Your task to perform on an android device: turn off location Image 0: 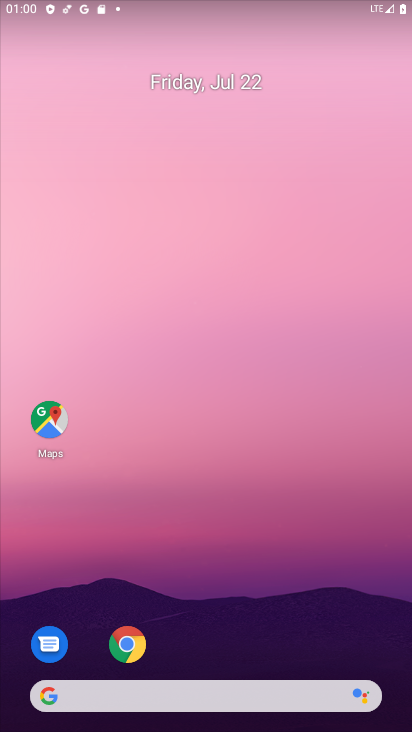
Step 0: drag from (271, 595) to (244, 24)
Your task to perform on an android device: turn off location Image 1: 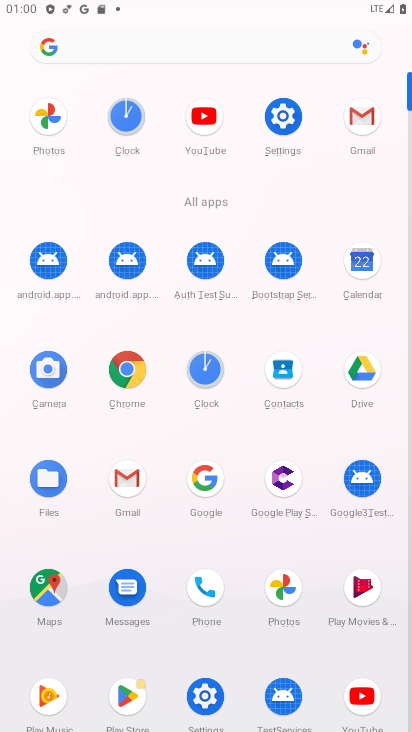
Step 1: click (278, 114)
Your task to perform on an android device: turn off location Image 2: 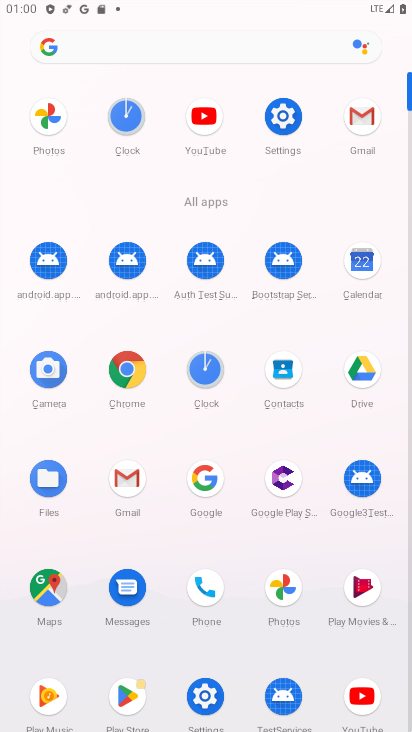
Step 2: click (278, 114)
Your task to perform on an android device: turn off location Image 3: 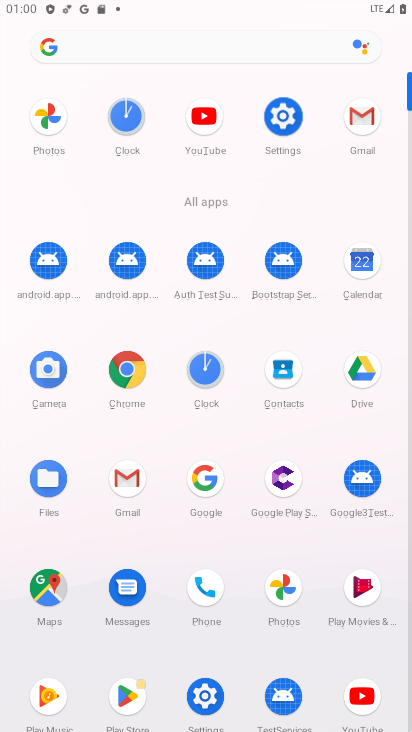
Step 3: click (278, 114)
Your task to perform on an android device: turn off location Image 4: 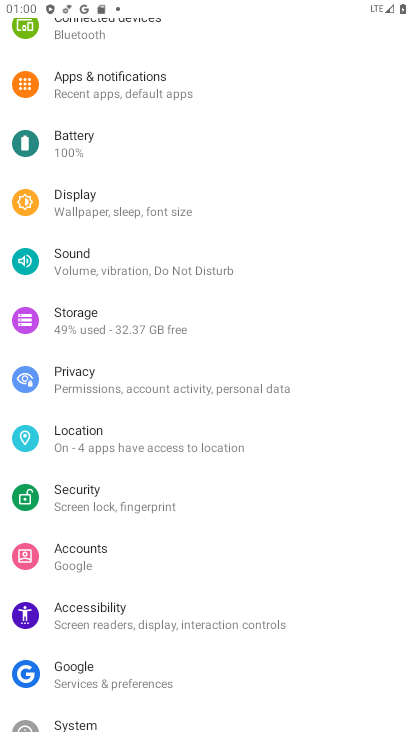
Step 4: click (98, 433)
Your task to perform on an android device: turn off location Image 5: 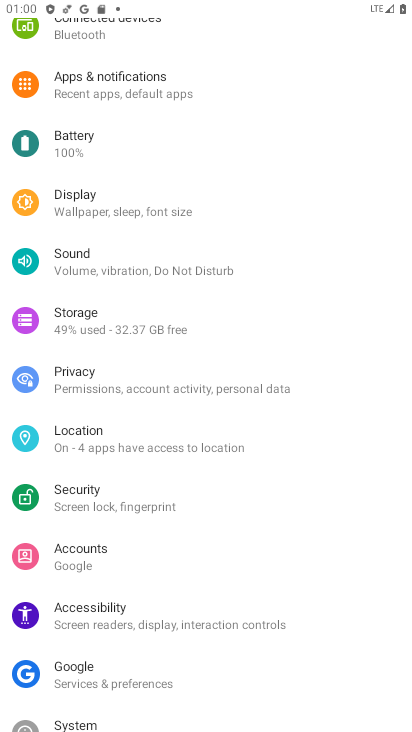
Step 5: click (98, 433)
Your task to perform on an android device: turn off location Image 6: 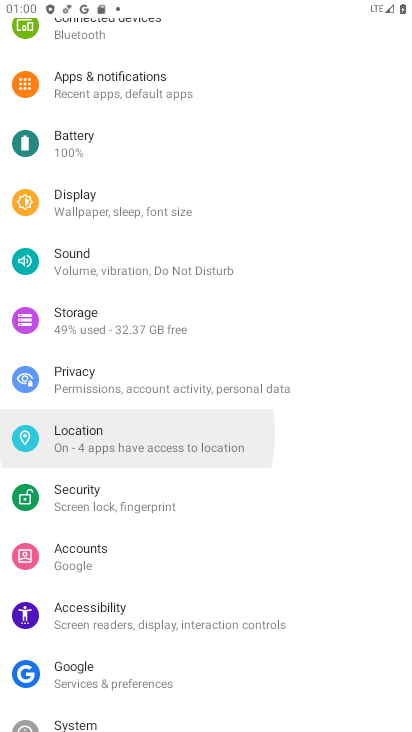
Step 6: click (98, 433)
Your task to perform on an android device: turn off location Image 7: 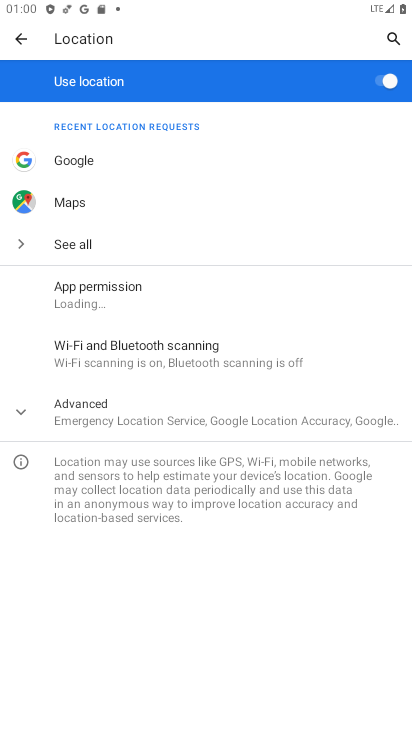
Step 7: click (391, 77)
Your task to perform on an android device: turn off location Image 8: 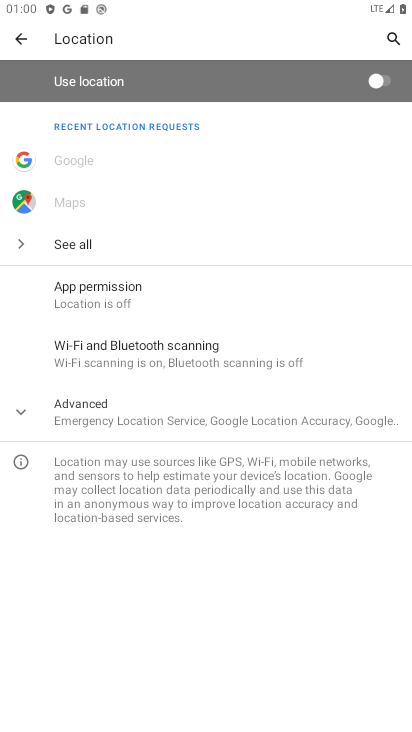
Step 8: task complete